Your task to perform on an android device: Check the news Image 0: 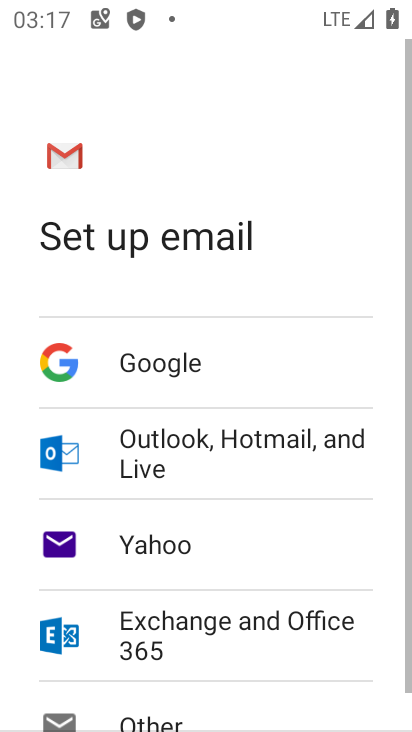
Step 0: press home button
Your task to perform on an android device: Check the news Image 1: 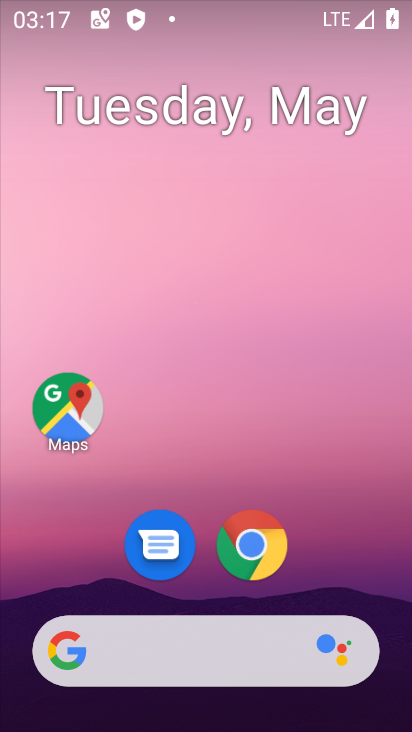
Step 1: task complete